Your task to perform on an android device: Go to Android settings Image 0: 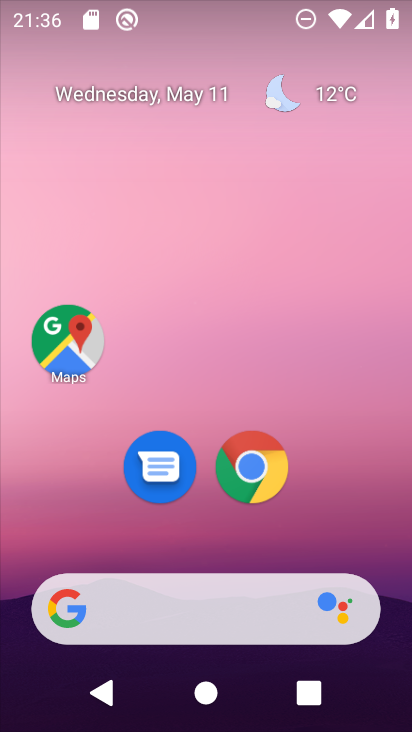
Step 0: drag from (216, 536) to (205, 1)
Your task to perform on an android device: Go to Android settings Image 1: 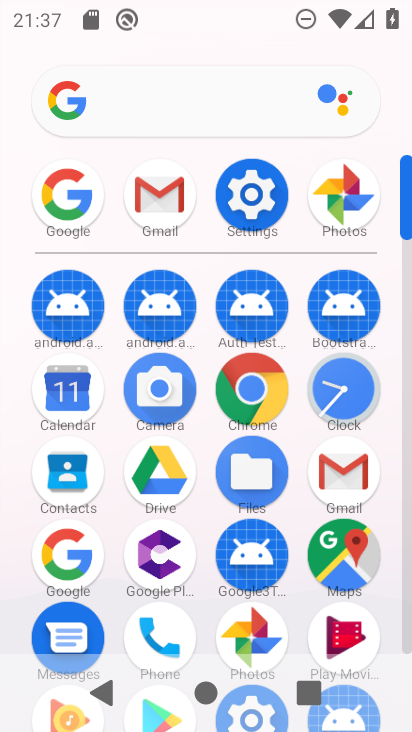
Step 1: click (245, 190)
Your task to perform on an android device: Go to Android settings Image 2: 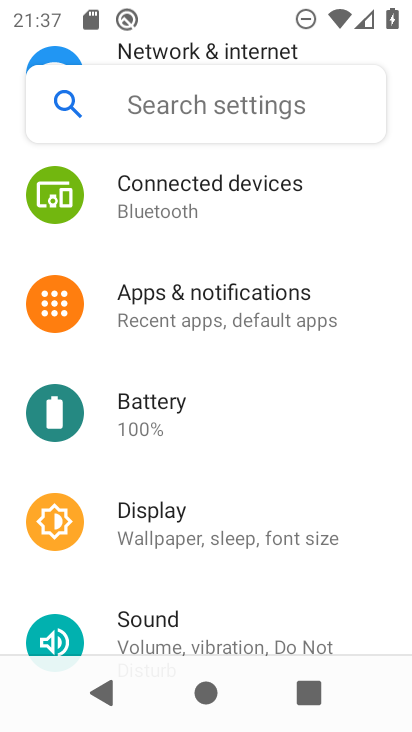
Step 2: drag from (237, 626) to (247, 60)
Your task to perform on an android device: Go to Android settings Image 3: 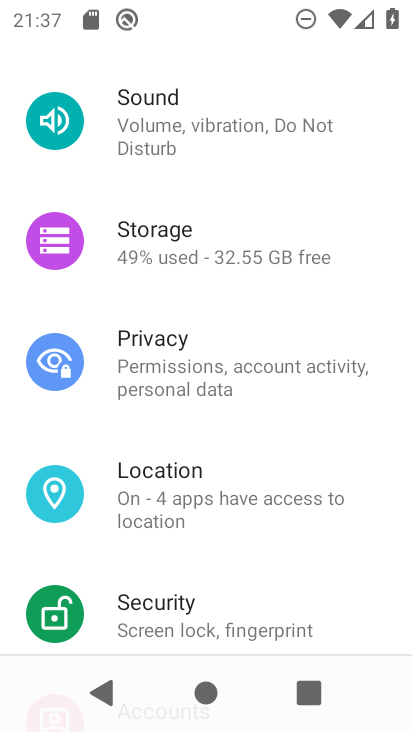
Step 3: drag from (192, 590) to (208, 257)
Your task to perform on an android device: Go to Android settings Image 4: 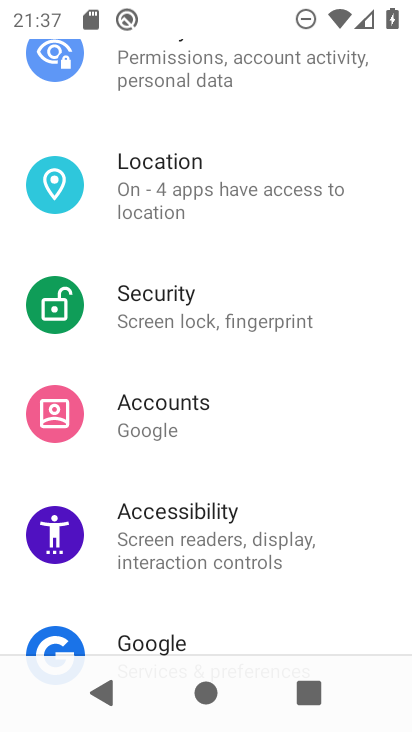
Step 4: drag from (231, 644) to (253, 99)
Your task to perform on an android device: Go to Android settings Image 5: 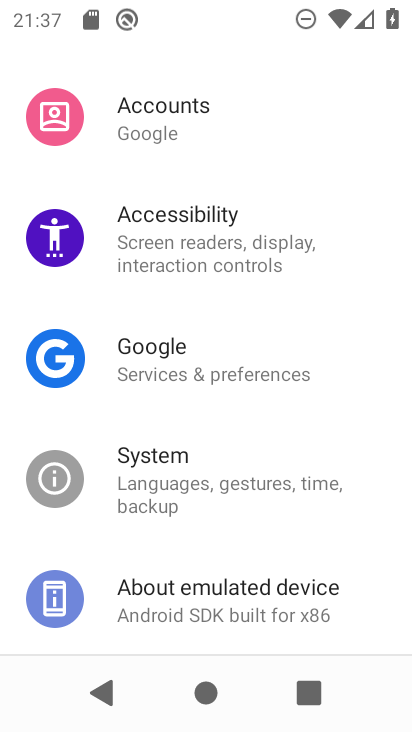
Step 5: click (220, 599)
Your task to perform on an android device: Go to Android settings Image 6: 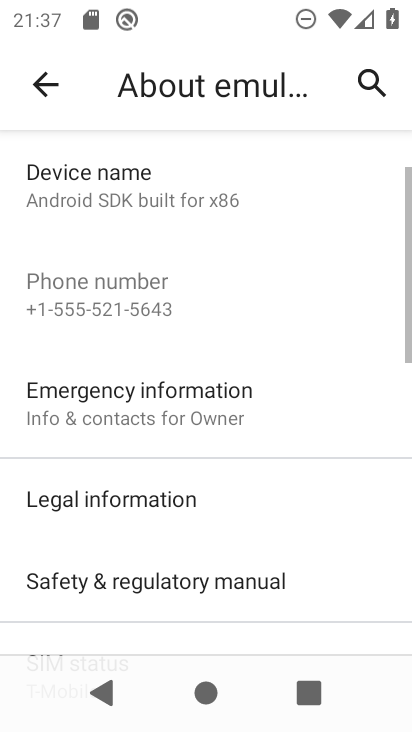
Step 6: drag from (182, 526) to (212, 130)
Your task to perform on an android device: Go to Android settings Image 7: 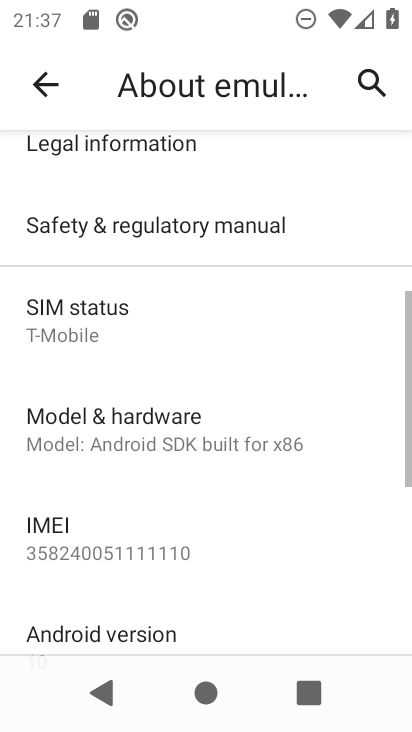
Step 7: click (180, 624)
Your task to perform on an android device: Go to Android settings Image 8: 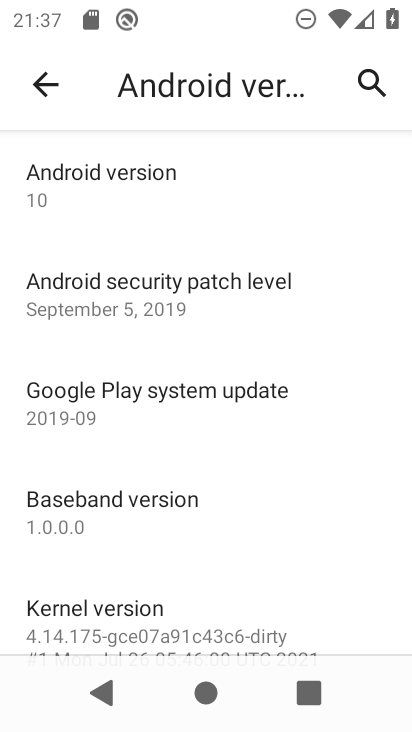
Step 8: task complete